Your task to perform on an android device: turn off notifications in google photos Image 0: 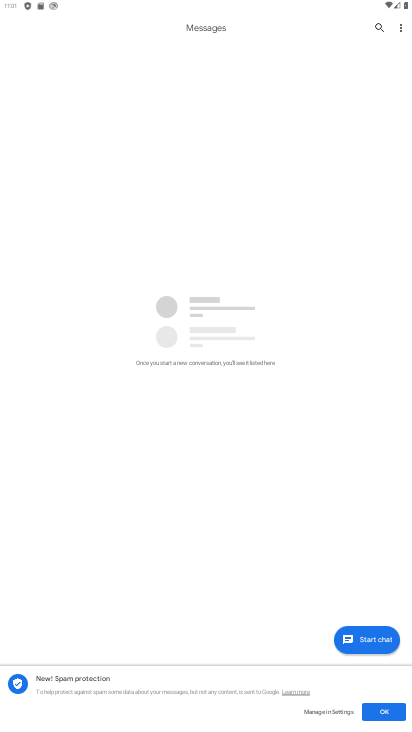
Step 0: press home button
Your task to perform on an android device: turn off notifications in google photos Image 1: 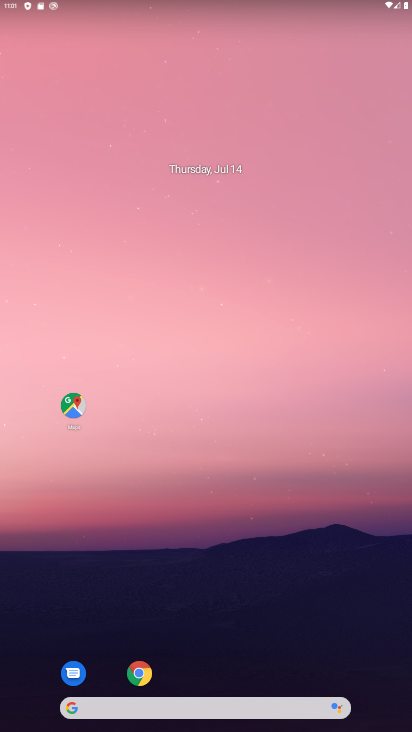
Step 1: drag from (293, 604) to (285, 22)
Your task to perform on an android device: turn off notifications in google photos Image 2: 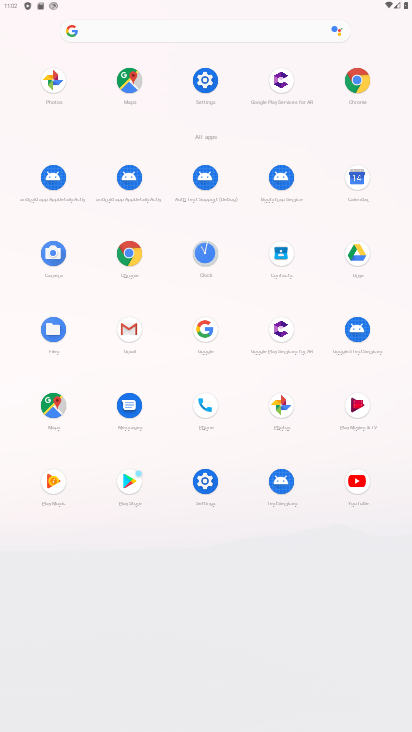
Step 2: click (279, 402)
Your task to perform on an android device: turn off notifications in google photos Image 3: 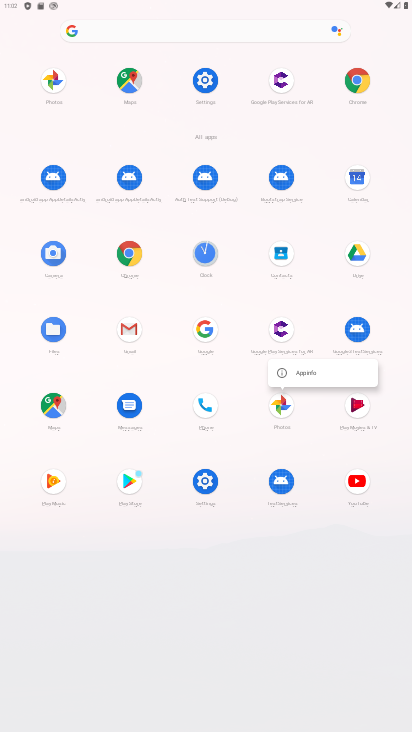
Step 3: click (308, 370)
Your task to perform on an android device: turn off notifications in google photos Image 4: 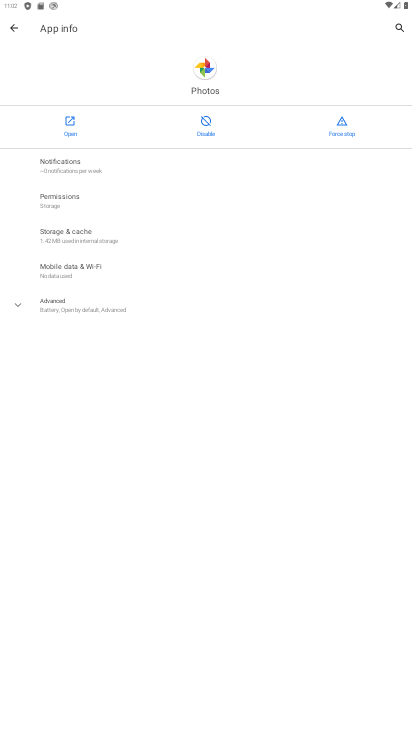
Step 4: click (57, 159)
Your task to perform on an android device: turn off notifications in google photos Image 5: 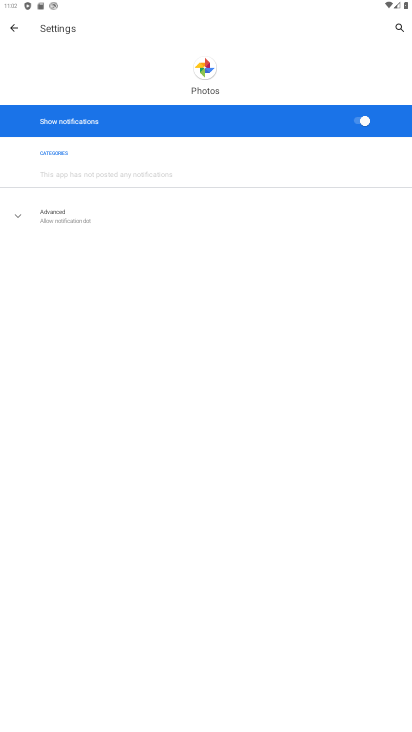
Step 5: click (372, 121)
Your task to perform on an android device: turn off notifications in google photos Image 6: 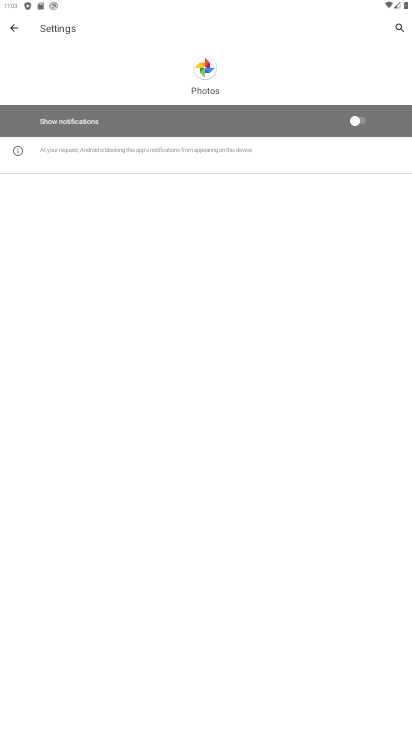
Step 6: task complete